Your task to perform on an android device: Show me popular games on the Play Store Image 0: 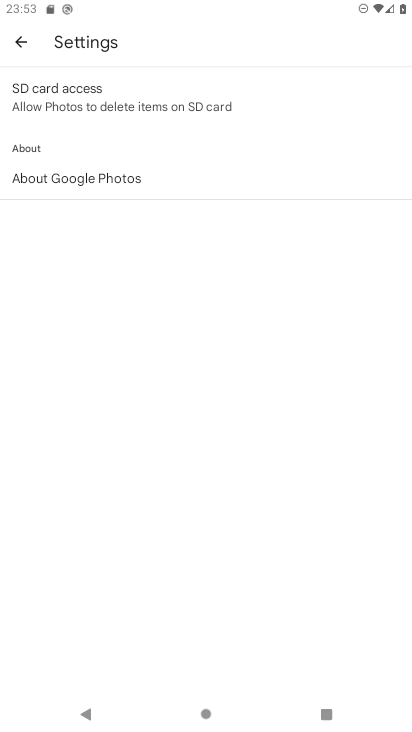
Step 0: press home button
Your task to perform on an android device: Show me popular games on the Play Store Image 1: 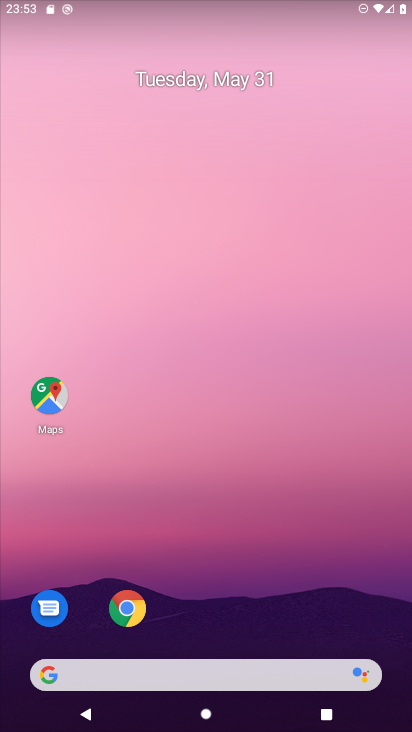
Step 1: drag from (158, 614) to (162, 10)
Your task to perform on an android device: Show me popular games on the Play Store Image 2: 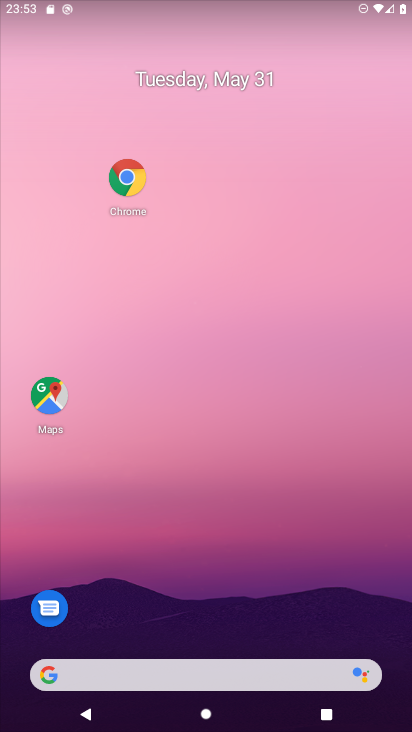
Step 2: drag from (292, 638) to (321, 0)
Your task to perform on an android device: Show me popular games on the Play Store Image 3: 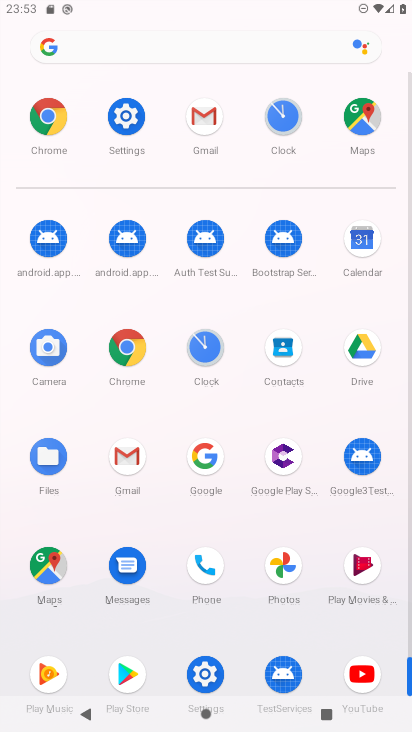
Step 3: click (115, 665)
Your task to perform on an android device: Show me popular games on the Play Store Image 4: 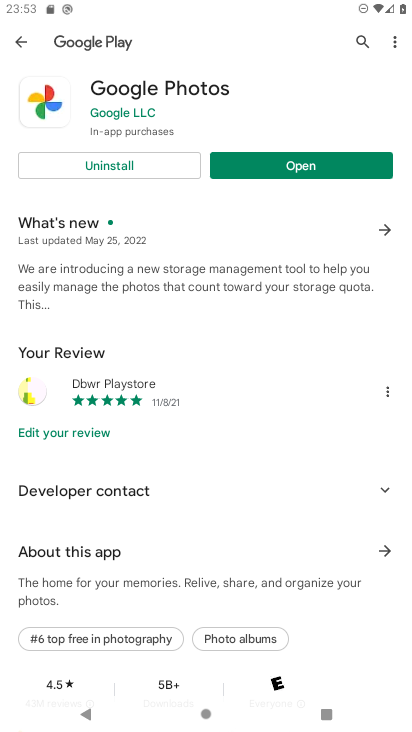
Step 4: click (10, 45)
Your task to perform on an android device: Show me popular games on the Play Store Image 5: 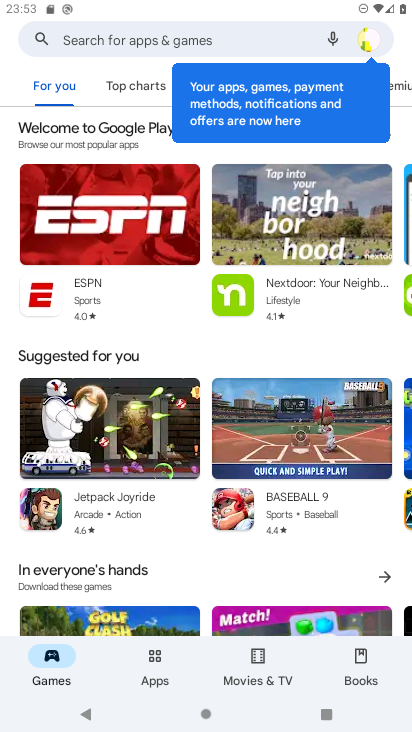
Step 5: click (162, 37)
Your task to perform on an android device: Show me popular games on the Play Store Image 6: 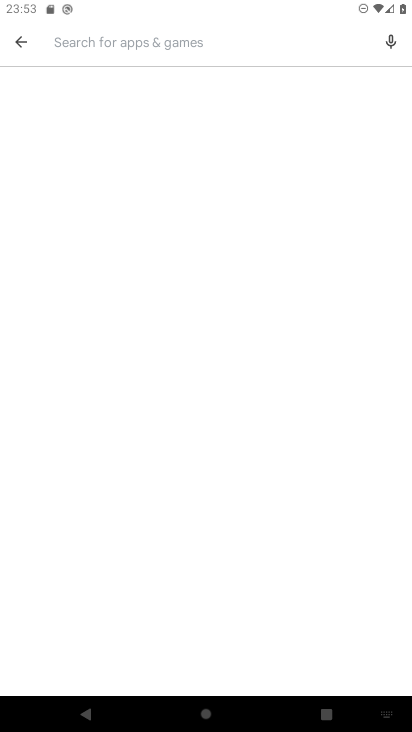
Step 6: type " popular games "
Your task to perform on an android device: Show me popular games on the Play Store Image 7: 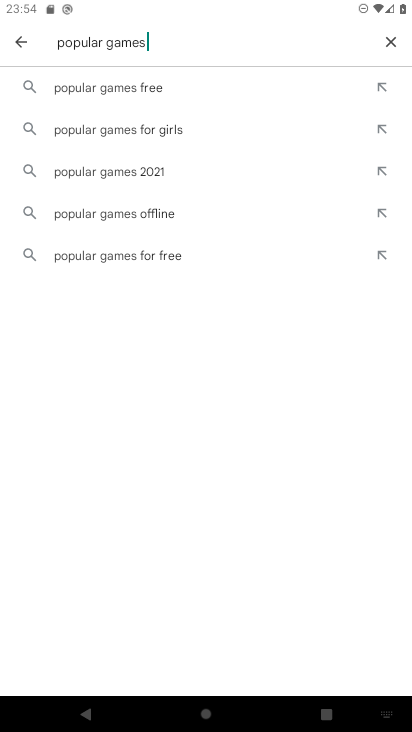
Step 7: click (211, 95)
Your task to perform on an android device: Show me popular games on the Play Store Image 8: 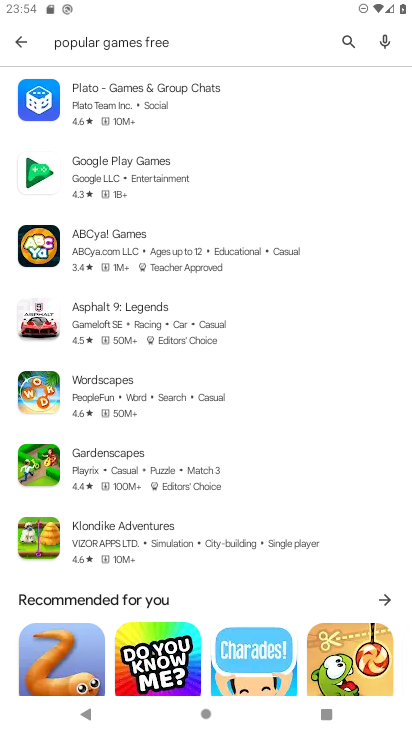
Step 8: task complete